Your task to perform on an android device: check battery use Image 0: 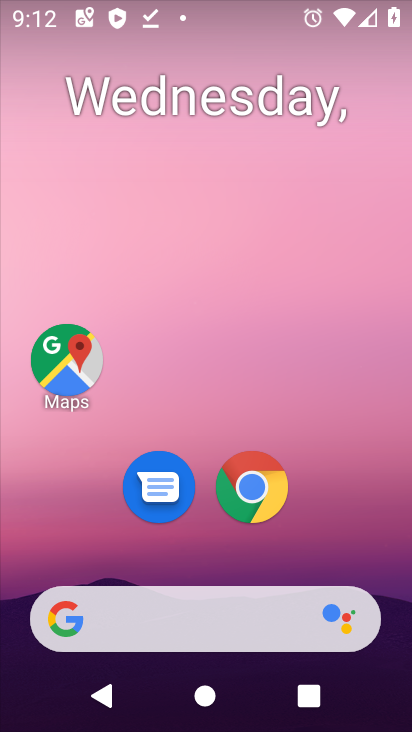
Step 0: drag from (283, 697) to (203, 57)
Your task to perform on an android device: check battery use Image 1: 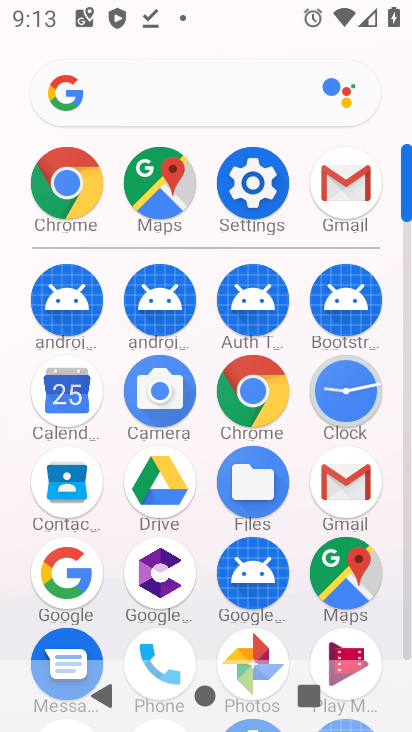
Step 1: click (261, 183)
Your task to perform on an android device: check battery use Image 2: 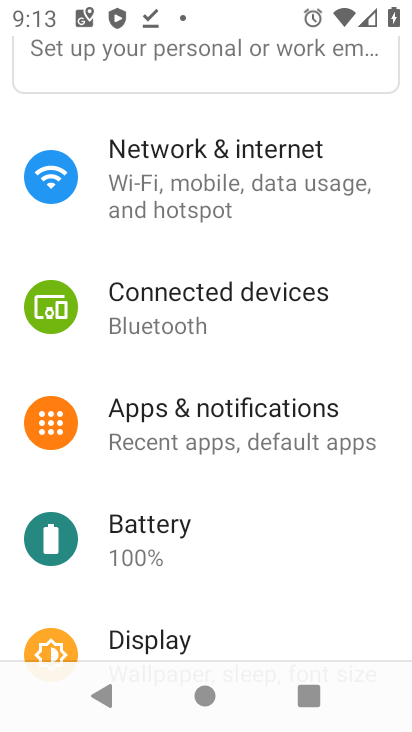
Step 2: click (143, 535)
Your task to perform on an android device: check battery use Image 3: 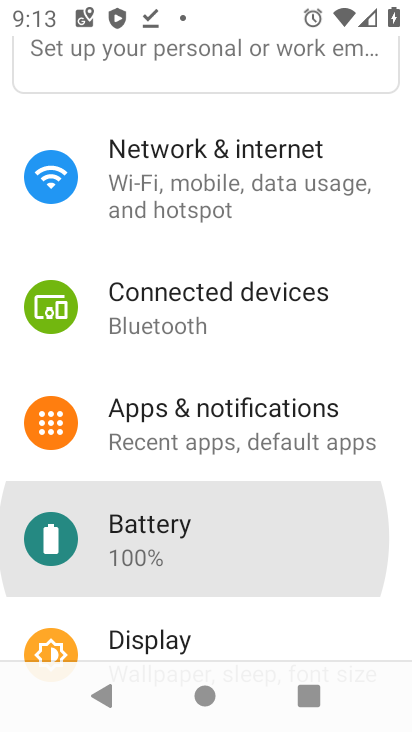
Step 3: click (142, 536)
Your task to perform on an android device: check battery use Image 4: 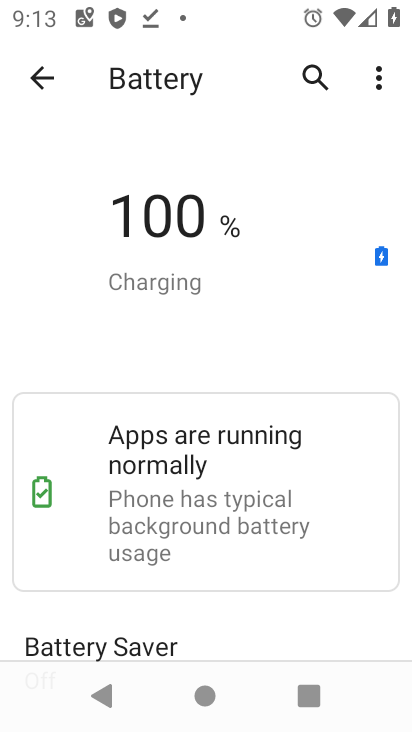
Step 4: task complete